Your task to perform on an android device: turn pop-ups on in chrome Image 0: 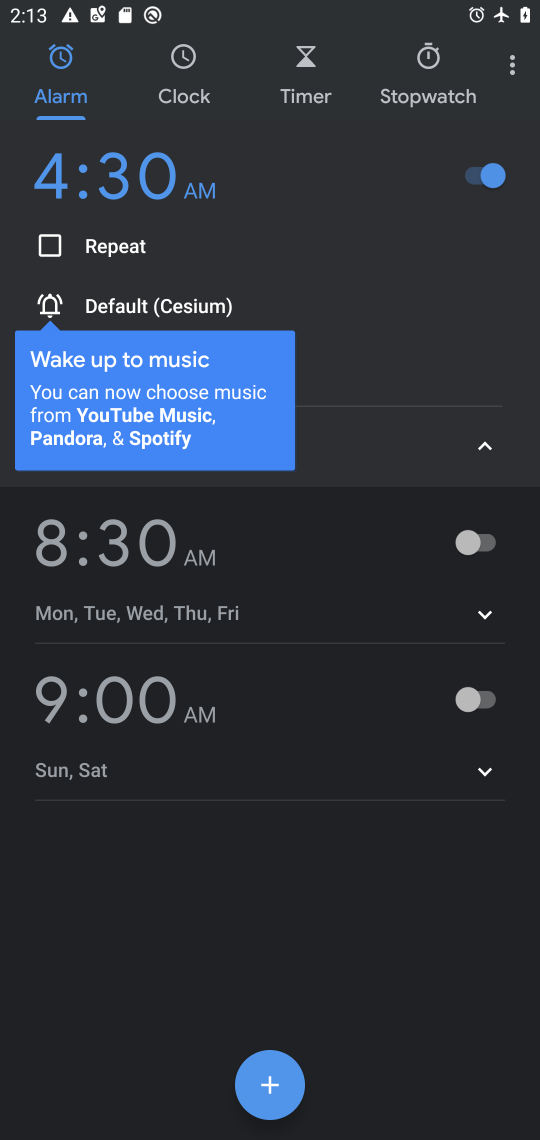
Step 0: press home button
Your task to perform on an android device: turn pop-ups on in chrome Image 1: 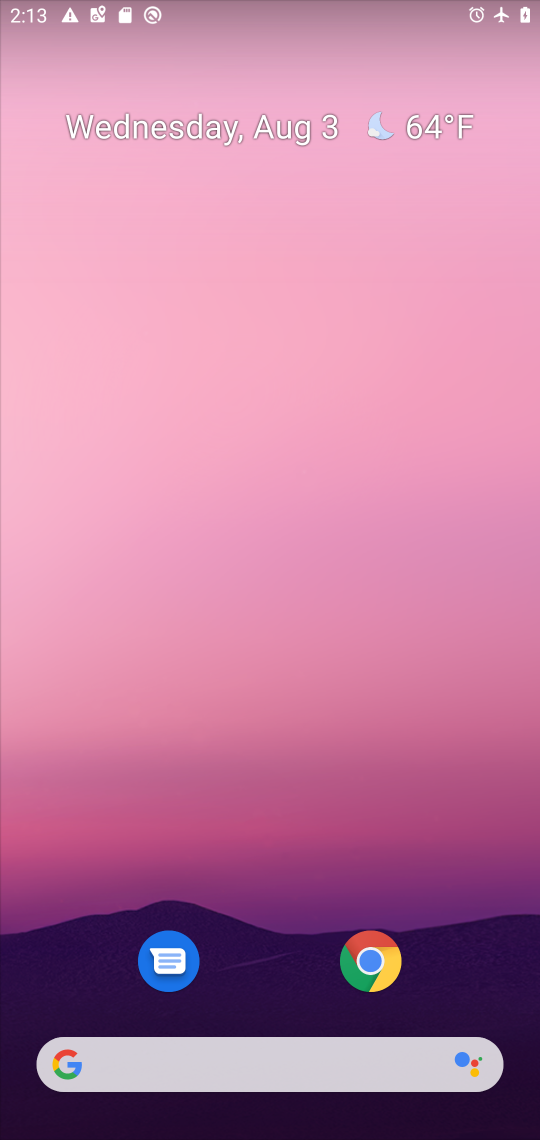
Step 1: click (380, 969)
Your task to perform on an android device: turn pop-ups on in chrome Image 2: 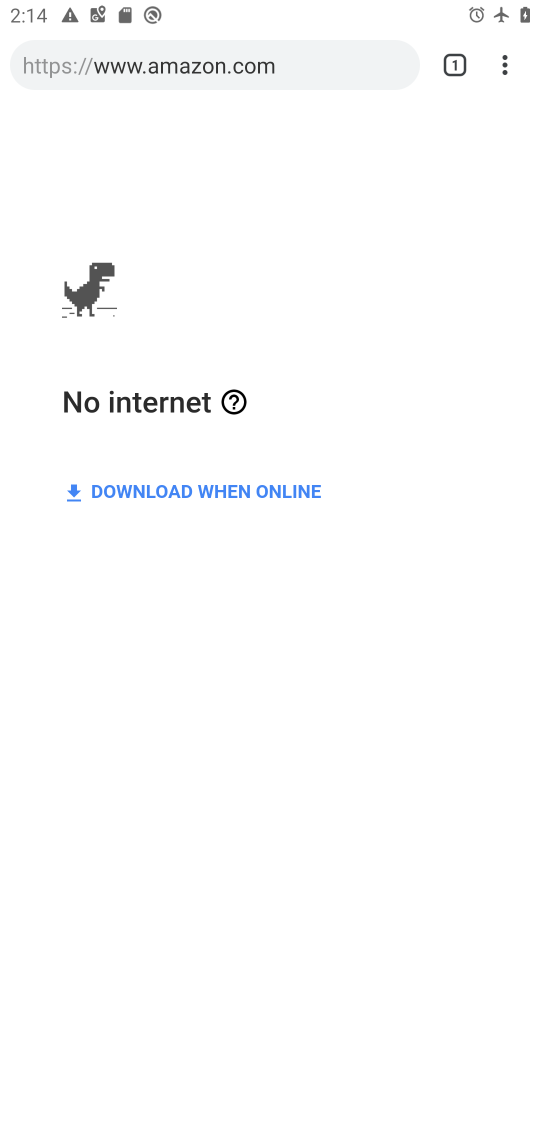
Step 2: drag from (509, 59) to (289, 724)
Your task to perform on an android device: turn pop-ups on in chrome Image 3: 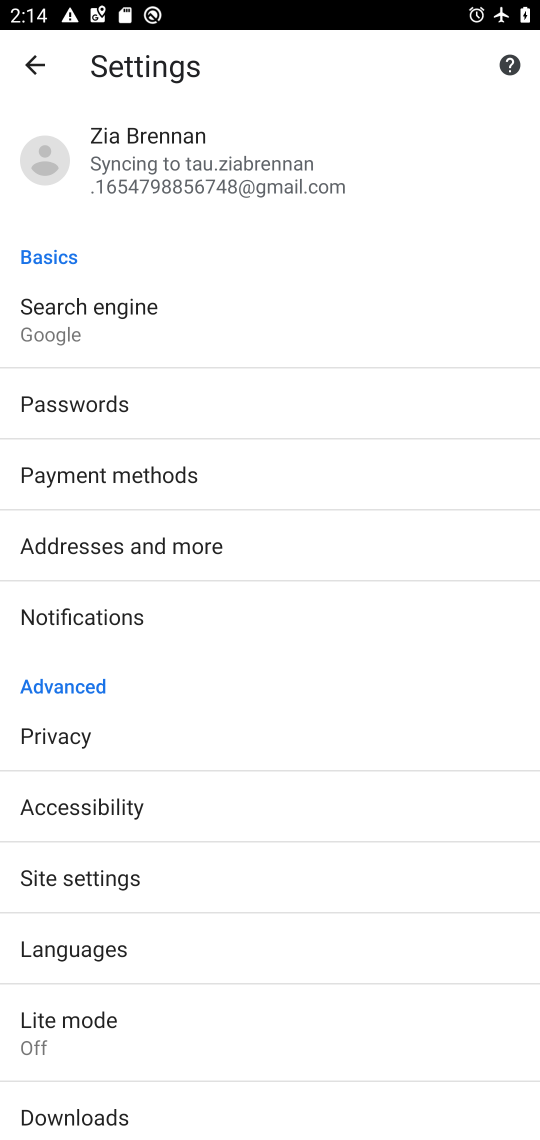
Step 3: click (123, 883)
Your task to perform on an android device: turn pop-ups on in chrome Image 4: 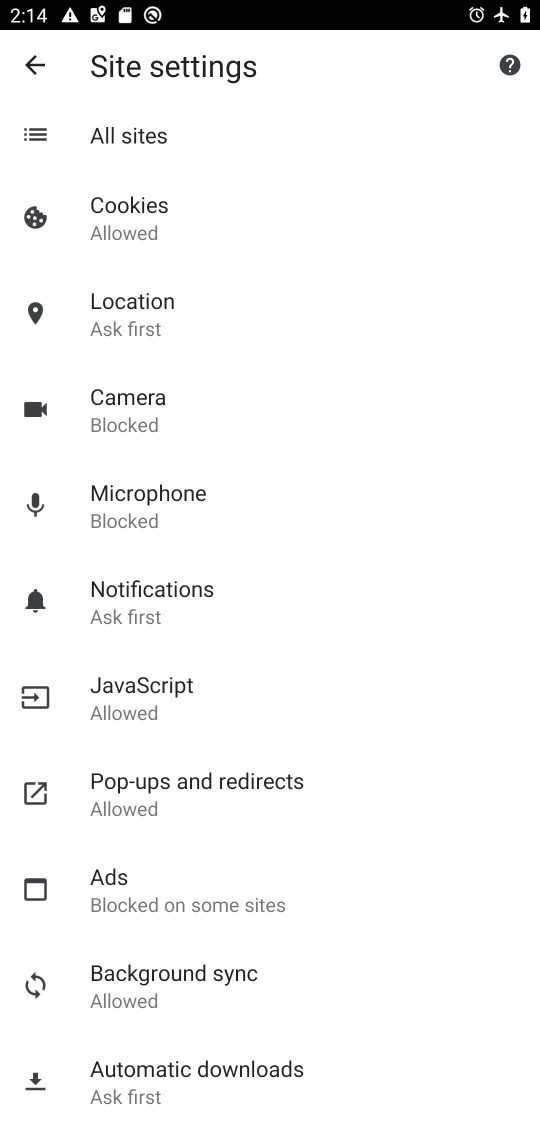
Step 4: click (105, 787)
Your task to perform on an android device: turn pop-ups on in chrome Image 5: 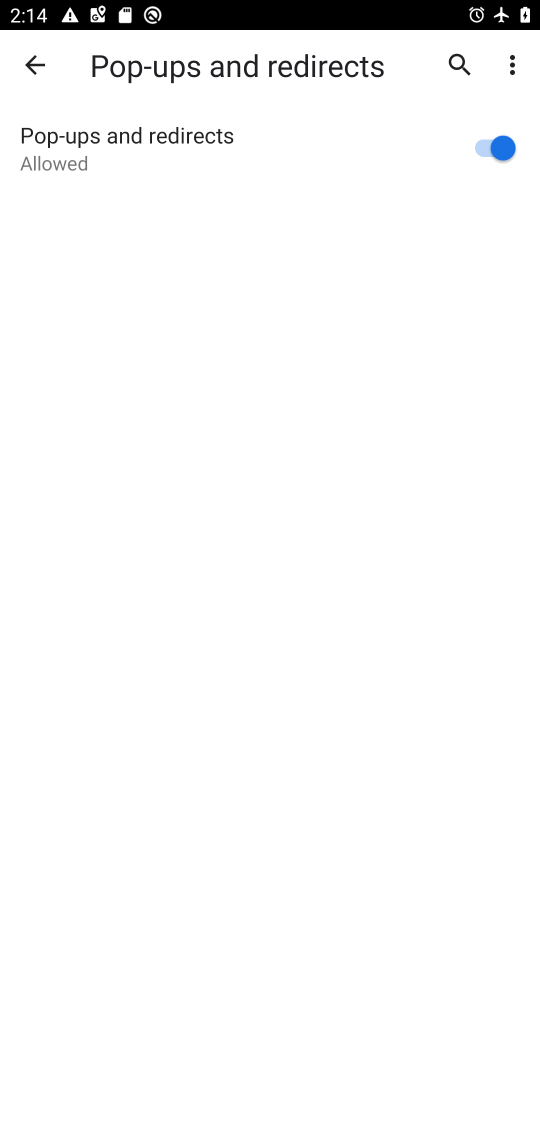
Step 5: task complete